Your task to perform on an android device: open app "Expedia: Hotels, Flights & Car" Image 0: 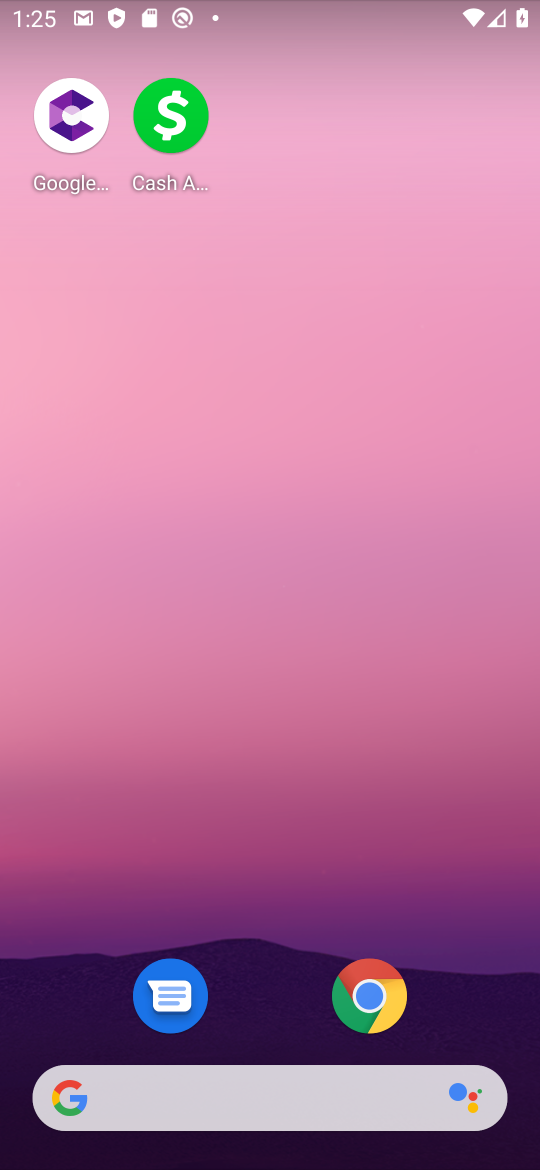
Step 0: press home button
Your task to perform on an android device: open app "Expedia: Hotels, Flights & Car" Image 1: 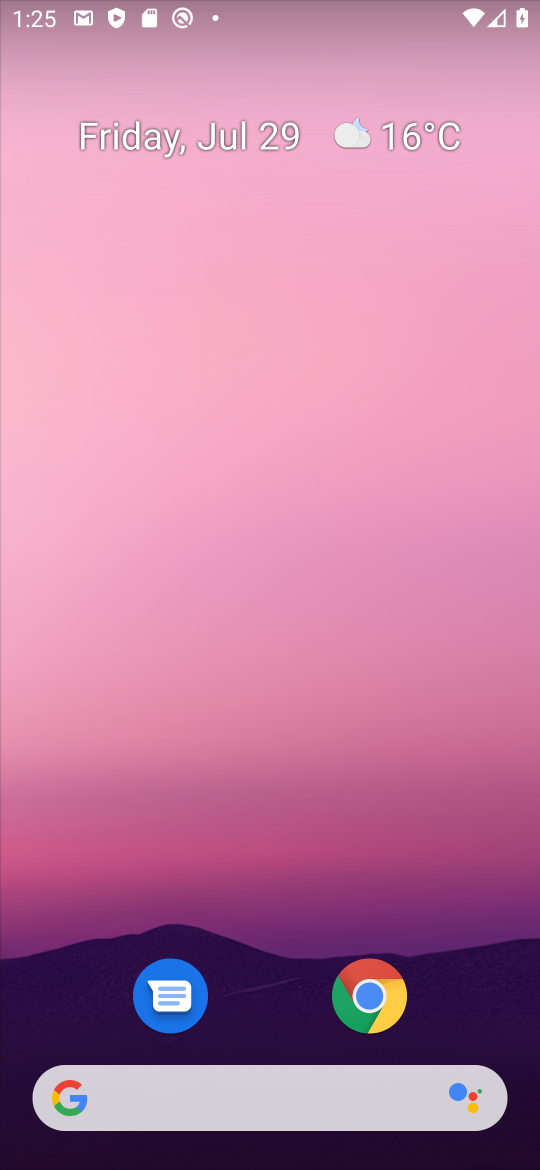
Step 1: drag from (275, 863) to (269, 219)
Your task to perform on an android device: open app "Expedia: Hotels, Flights & Car" Image 2: 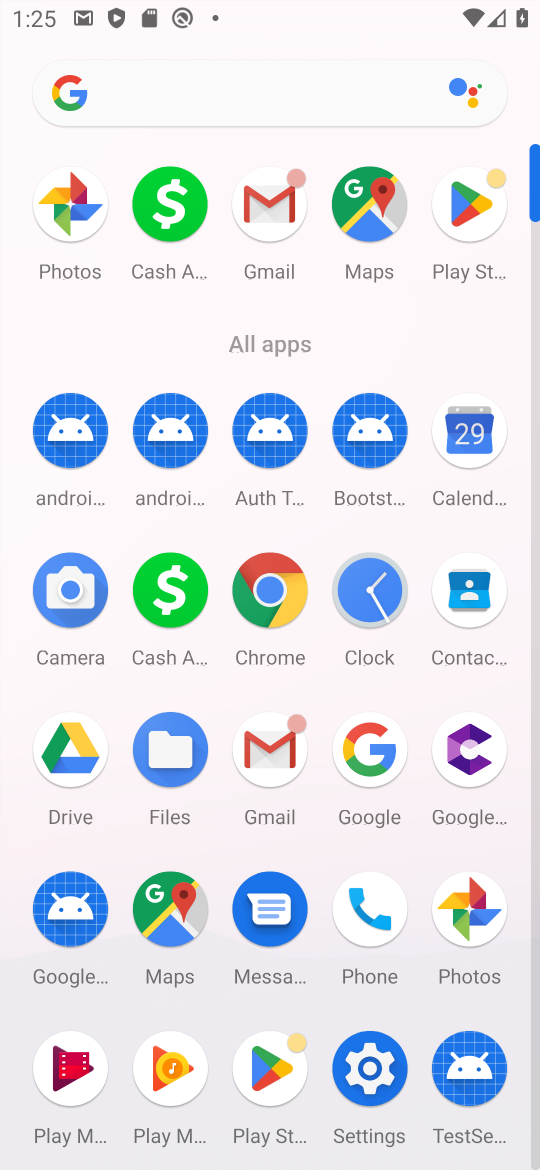
Step 2: click (261, 1069)
Your task to perform on an android device: open app "Expedia: Hotels, Flights & Car" Image 3: 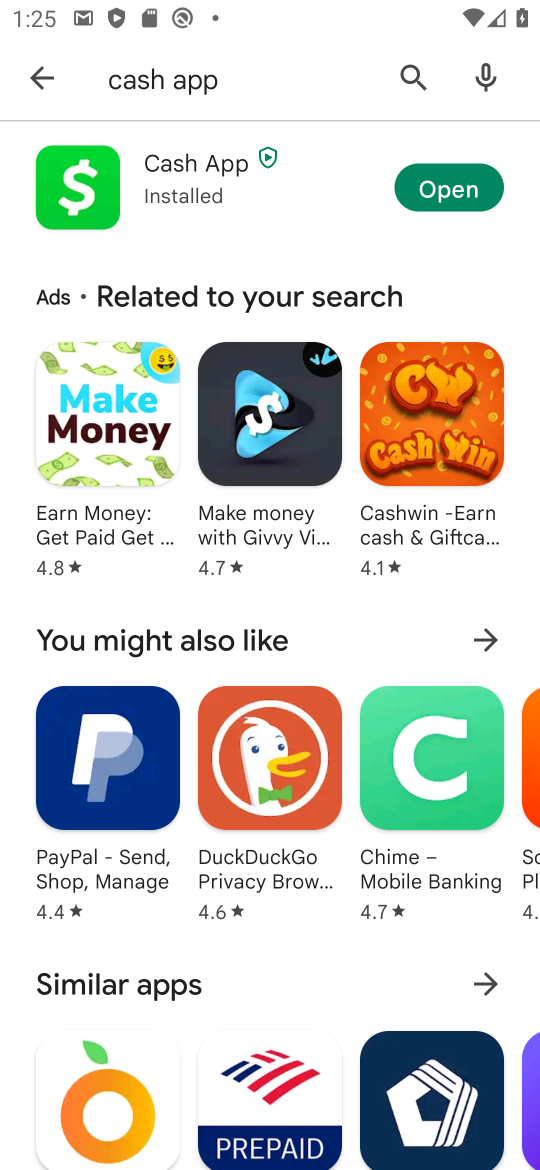
Step 3: click (416, 68)
Your task to perform on an android device: open app "Expedia: Hotels, Flights & Car" Image 4: 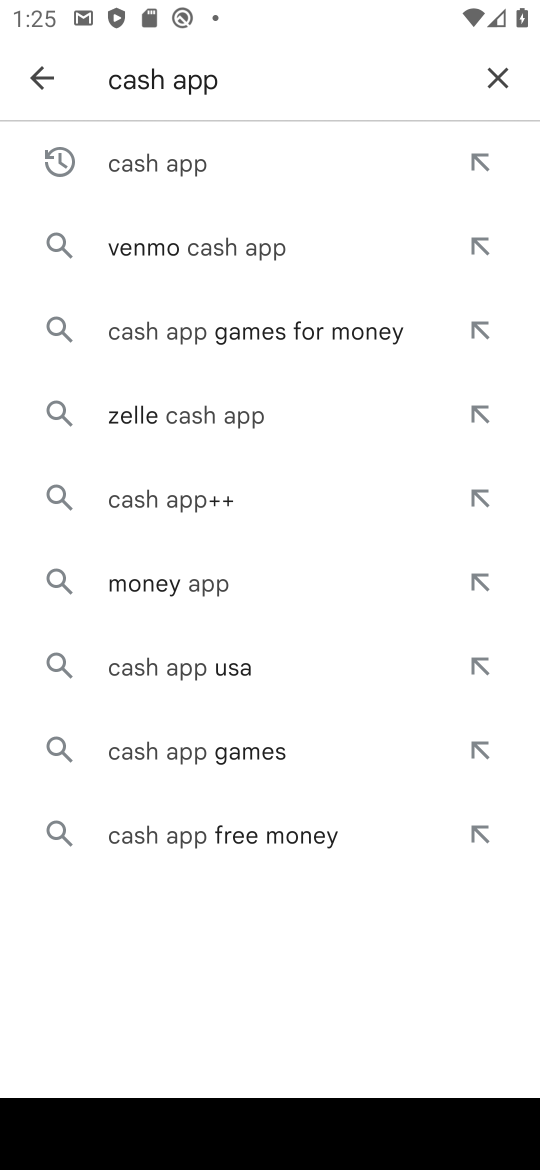
Step 4: click (486, 79)
Your task to perform on an android device: open app "Expedia: Hotels, Flights & Car" Image 5: 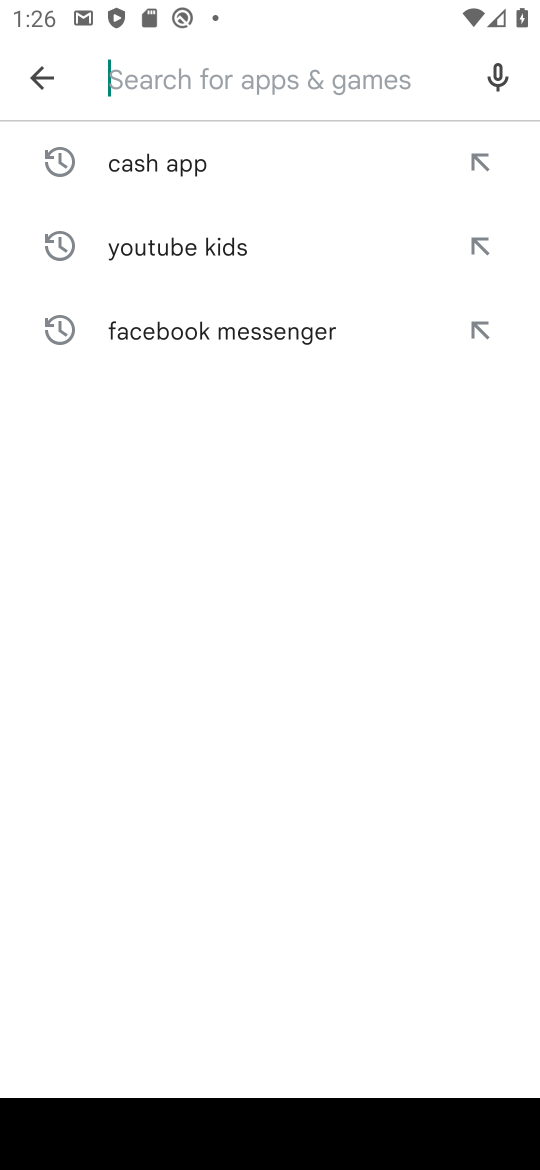
Step 5: type "Expedia: Hotels, Flights & Car"
Your task to perform on an android device: open app "Expedia: Hotels, Flights & Car" Image 6: 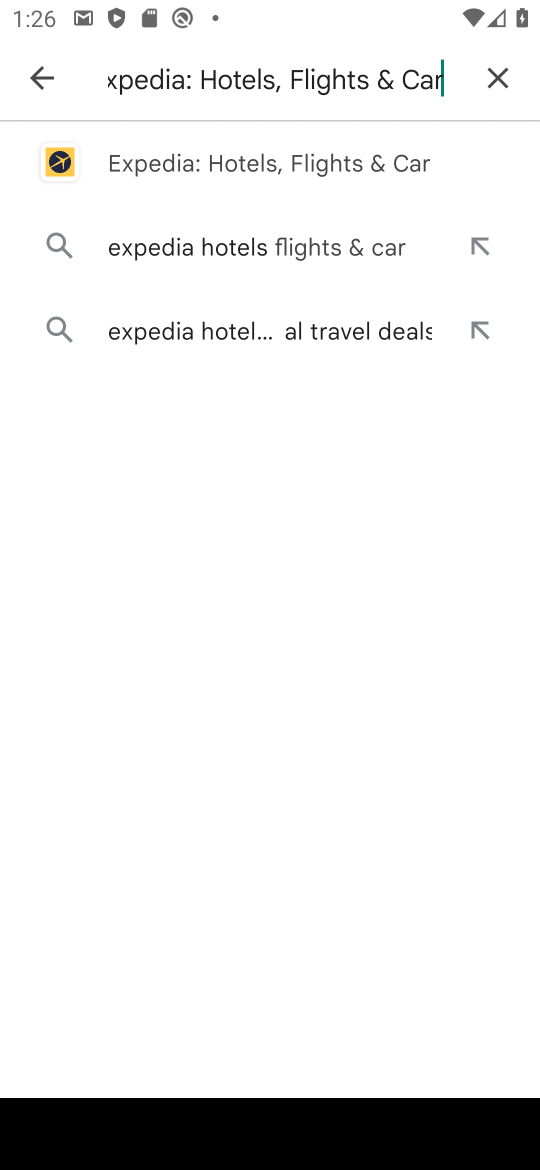
Step 6: click (158, 167)
Your task to perform on an android device: open app "Expedia: Hotels, Flights & Car" Image 7: 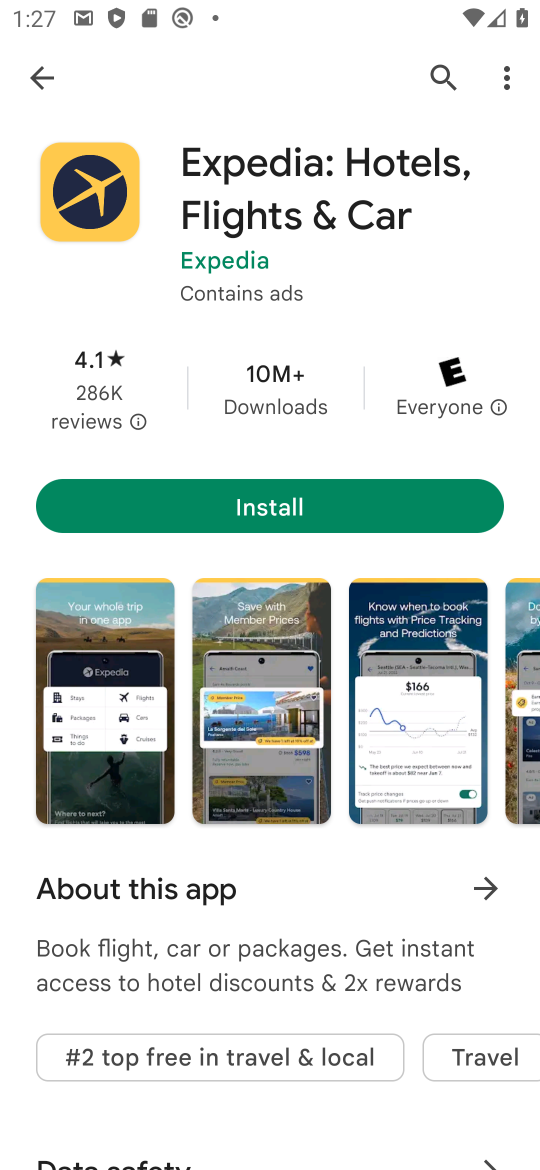
Step 7: click (252, 518)
Your task to perform on an android device: open app "Expedia: Hotels, Flights & Car" Image 8: 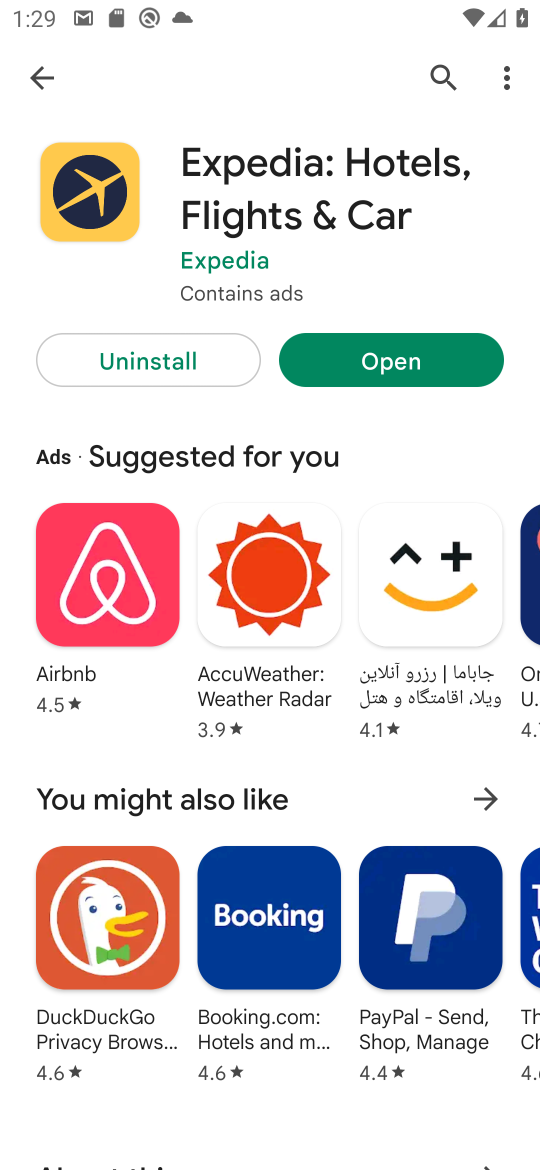
Step 8: task complete